Your task to perform on an android device: Empty the shopping cart on target. Add "dell xps" to the cart on target, then select checkout. Image 0: 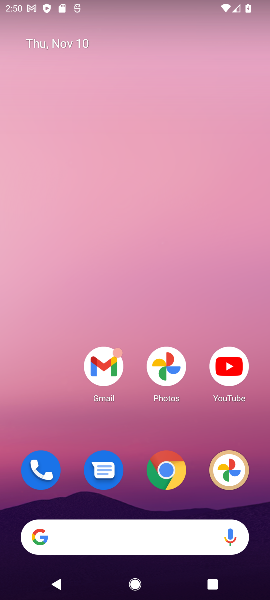
Step 0: click (170, 468)
Your task to perform on an android device: Empty the shopping cart on target. Add "dell xps" to the cart on target, then select checkout. Image 1: 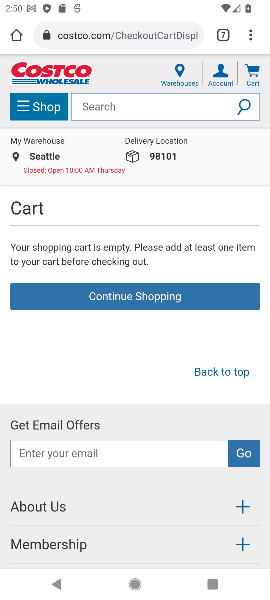
Step 1: click (224, 36)
Your task to perform on an android device: Empty the shopping cart on target. Add "dell xps" to the cart on target, then select checkout. Image 2: 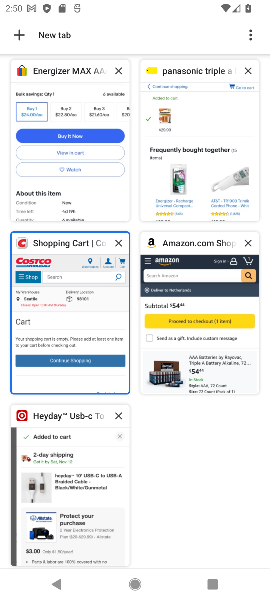
Step 2: click (50, 424)
Your task to perform on an android device: Empty the shopping cart on target. Add "dell xps" to the cart on target, then select checkout. Image 3: 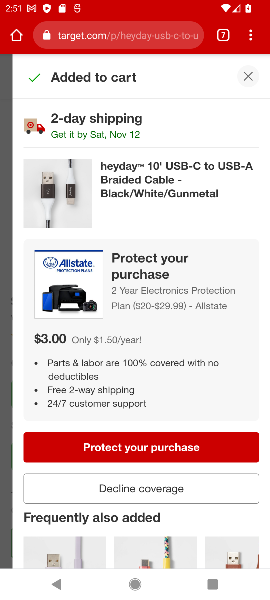
Step 3: click (244, 69)
Your task to perform on an android device: Empty the shopping cart on target. Add "dell xps" to the cart on target, then select checkout. Image 4: 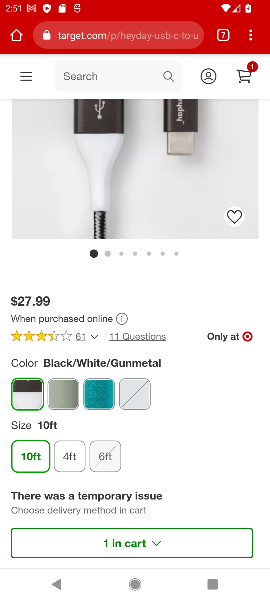
Step 4: click (245, 64)
Your task to perform on an android device: Empty the shopping cart on target. Add "dell xps" to the cart on target, then select checkout. Image 5: 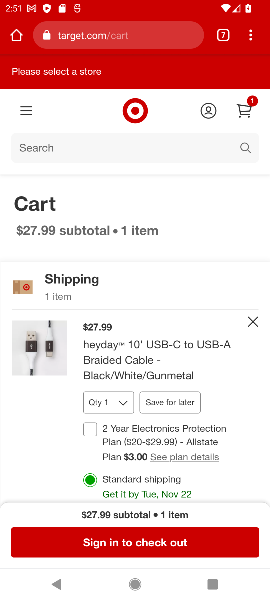
Step 5: click (250, 324)
Your task to perform on an android device: Empty the shopping cart on target. Add "dell xps" to the cart on target, then select checkout. Image 6: 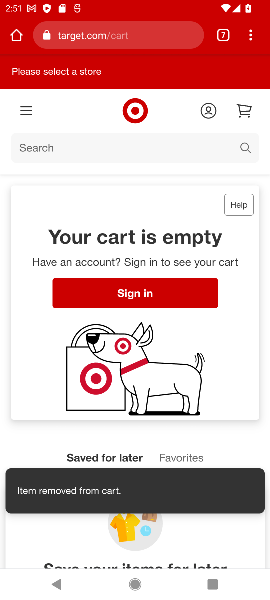
Step 6: click (81, 149)
Your task to perform on an android device: Empty the shopping cart on target. Add "dell xps" to the cart on target, then select checkout. Image 7: 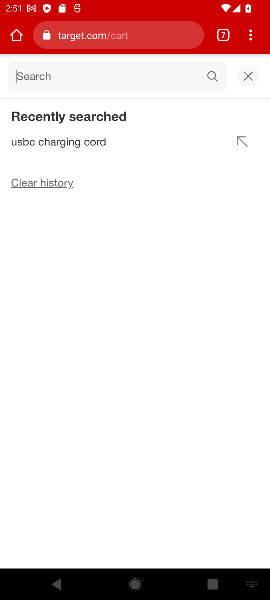
Step 7: type "dell xps"
Your task to perform on an android device: Empty the shopping cart on target. Add "dell xps" to the cart on target, then select checkout. Image 8: 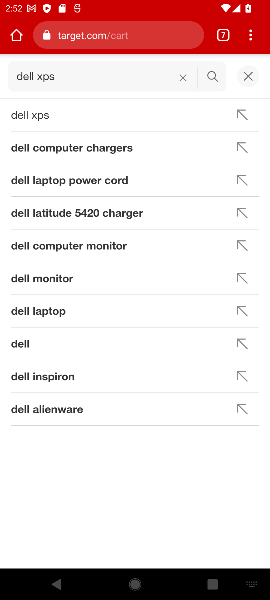
Step 8: click (26, 114)
Your task to perform on an android device: Empty the shopping cart on target. Add "dell xps" to the cart on target, then select checkout. Image 9: 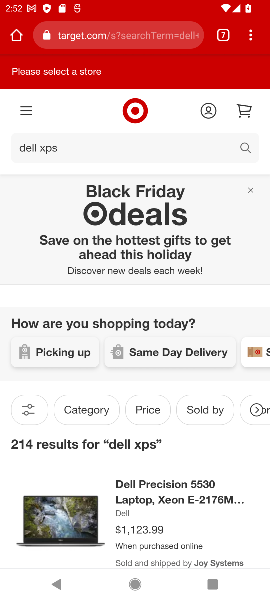
Step 9: task complete